Your task to perform on an android device: Go to Amazon Image 0: 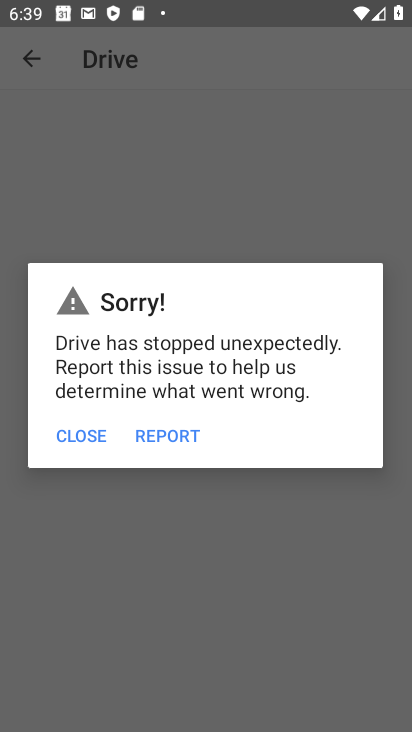
Step 0: press home button
Your task to perform on an android device: Go to Amazon Image 1: 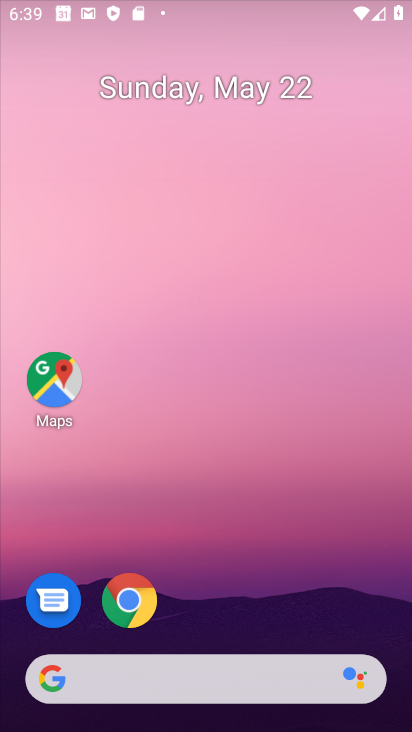
Step 1: drag from (396, 637) to (236, 51)
Your task to perform on an android device: Go to Amazon Image 2: 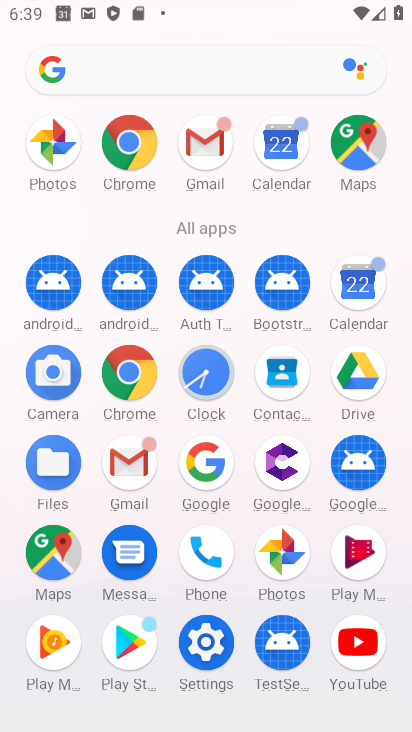
Step 2: click (198, 477)
Your task to perform on an android device: Go to Amazon Image 3: 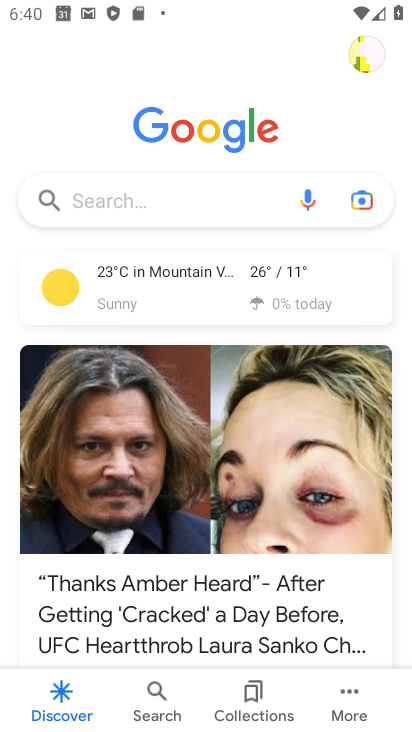
Step 3: click (126, 200)
Your task to perform on an android device: Go to Amazon Image 4: 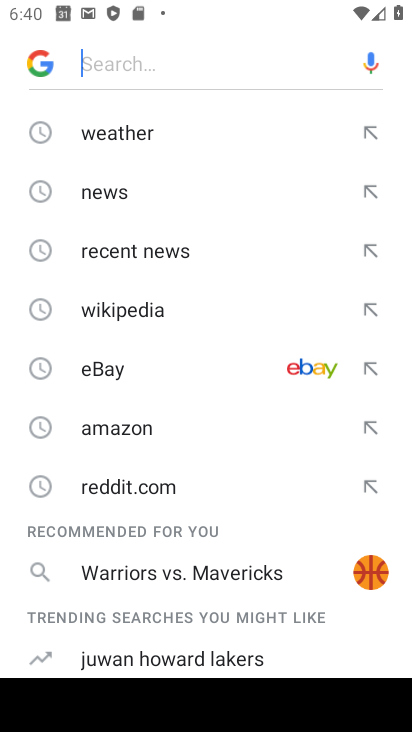
Step 4: click (134, 427)
Your task to perform on an android device: Go to Amazon Image 5: 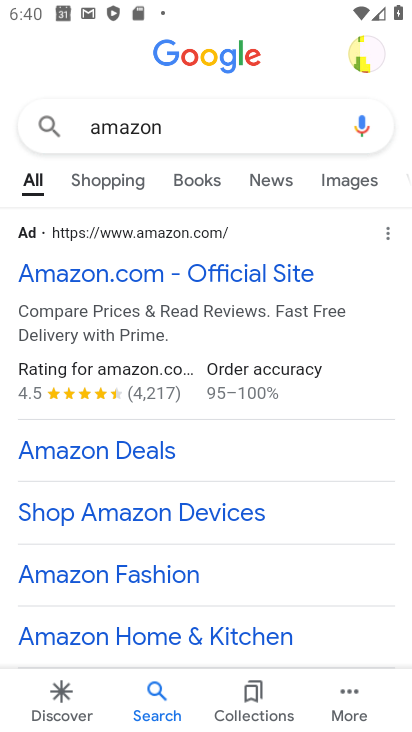
Step 5: task complete